Your task to perform on an android device: install app "LiveIn - Share Your Moment" Image 0: 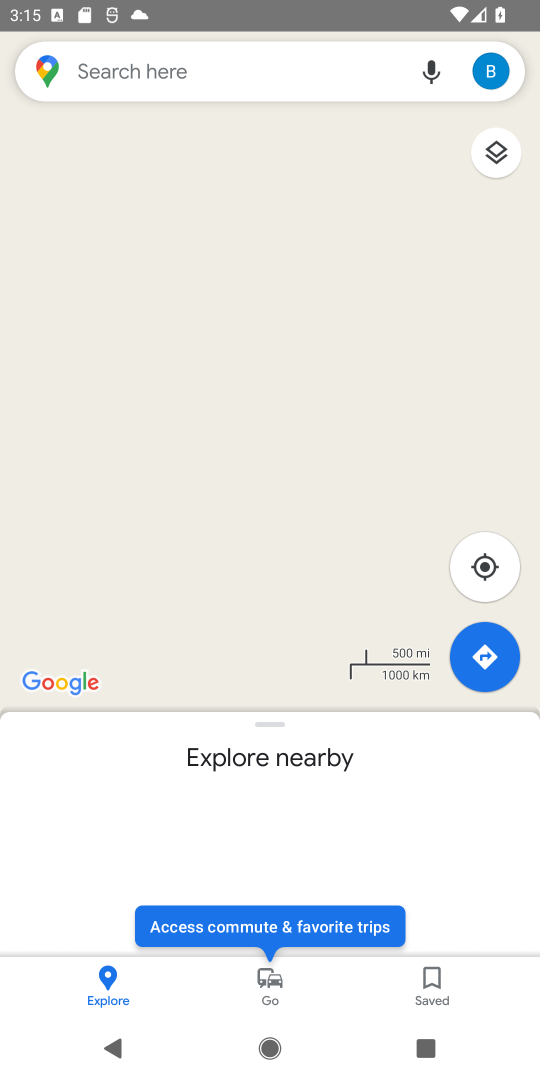
Step 0: press home button
Your task to perform on an android device: install app "LiveIn - Share Your Moment" Image 1: 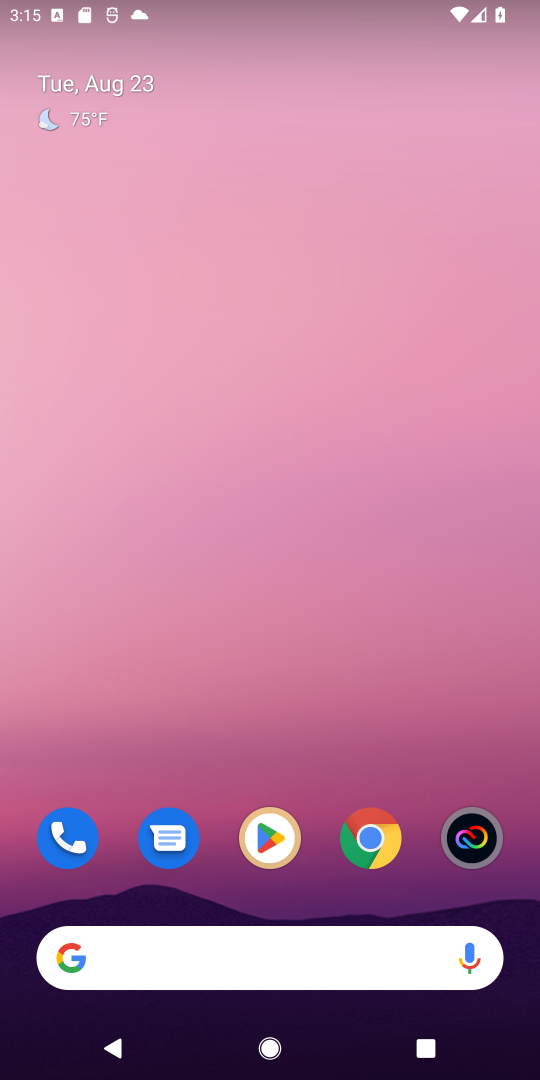
Step 1: click (274, 836)
Your task to perform on an android device: install app "LiveIn - Share Your Moment" Image 2: 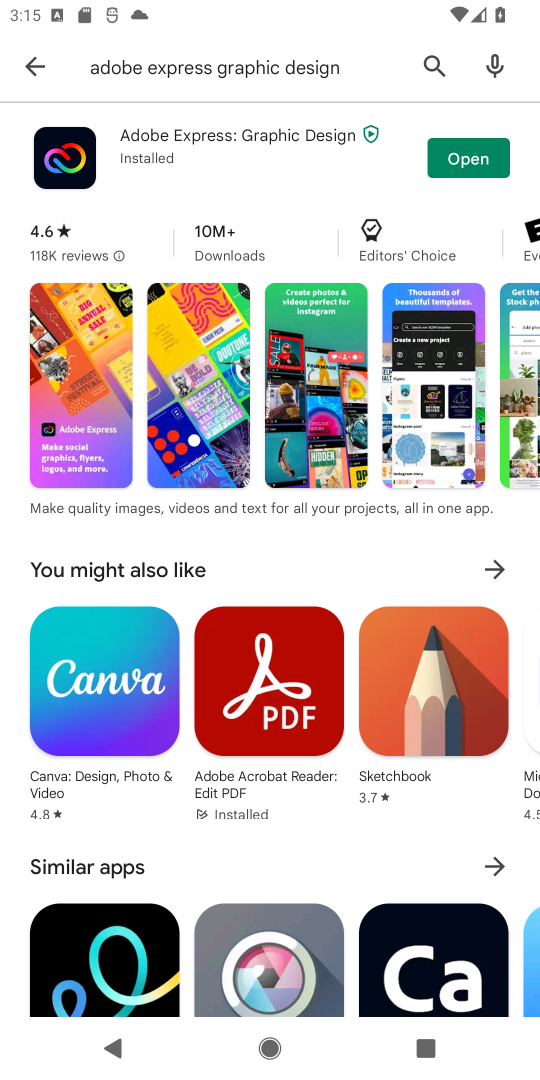
Step 2: click (30, 75)
Your task to perform on an android device: install app "LiveIn - Share Your Moment" Image 3: 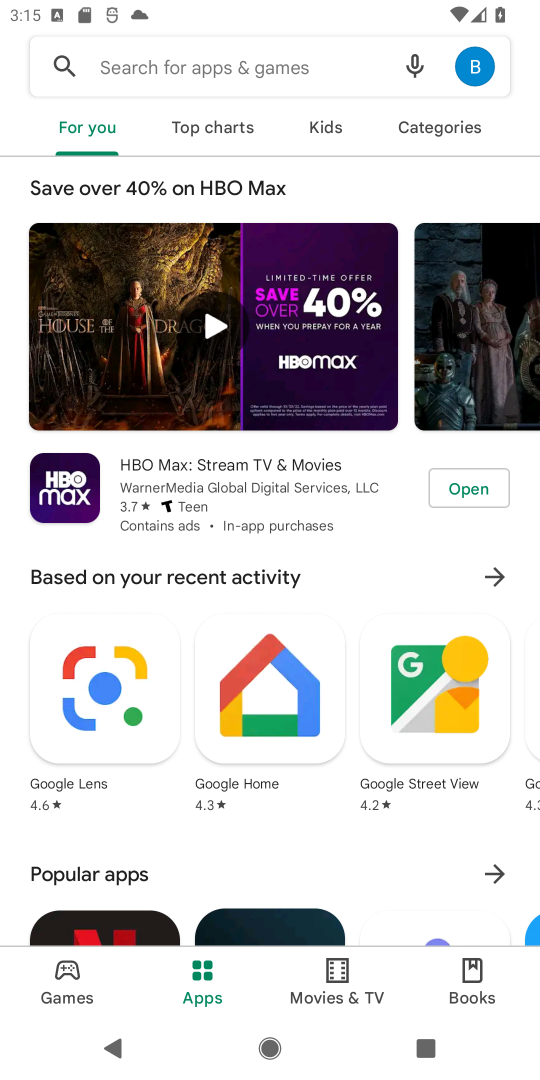
Step 3: click (118, 67)
Your task to perform on an android device: install app "LiveIn - Share Your Moment" Image 4: 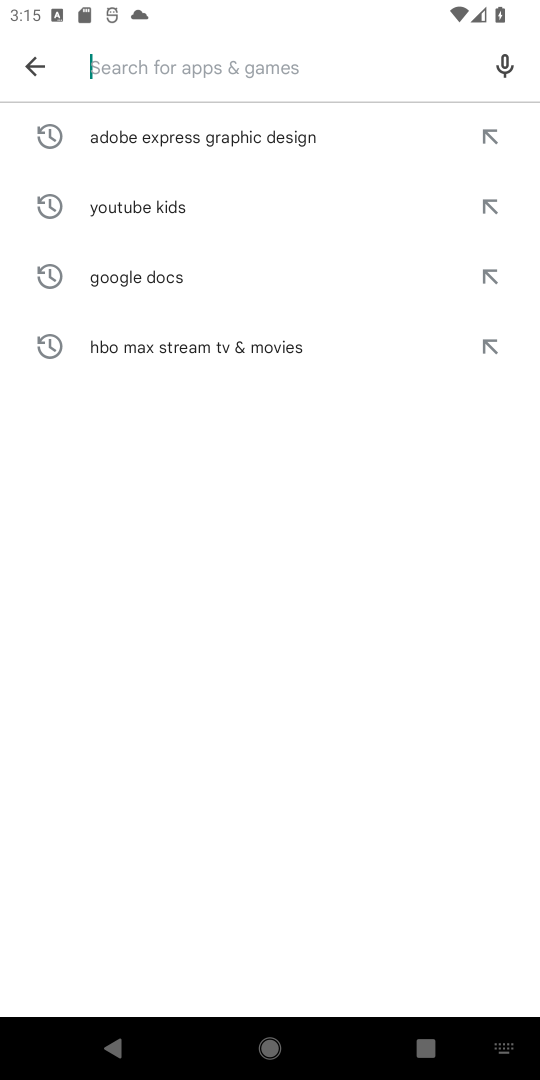
Step 4: type "LiveIn"
Your task to perform on an android device: install app "LiveIn - Share Your Moment" Image 5: 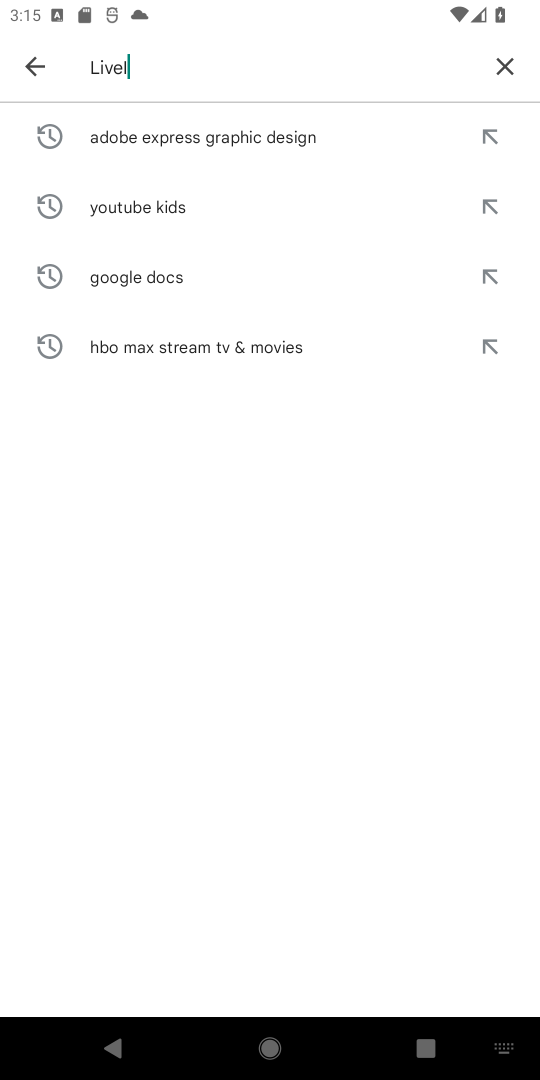
Step 5: type ""
Your task to perform on an android device: install app "LiveIn - Share Your Moment" Image 6: 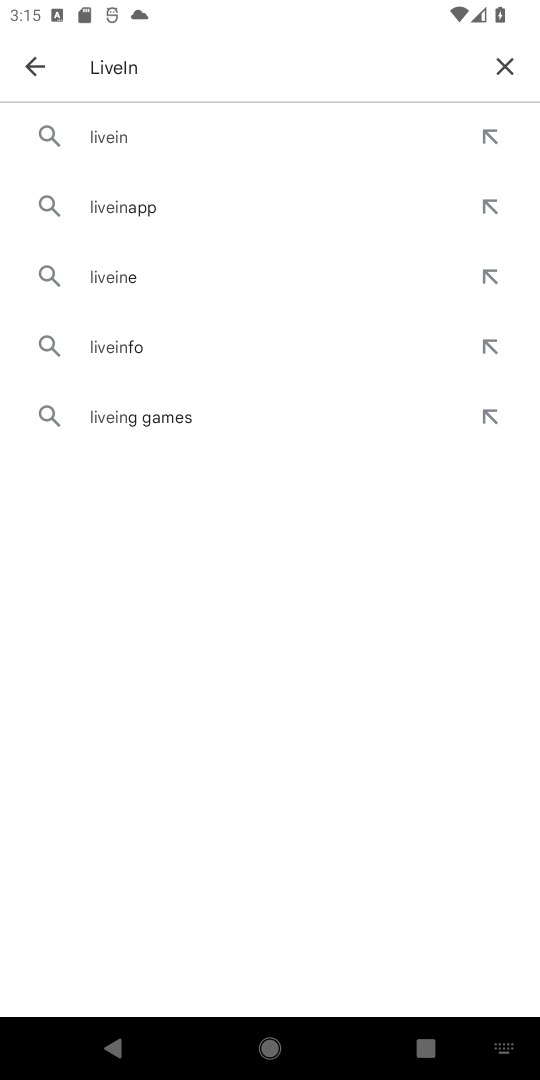
Step 6: click (148, 146)
Your task to perform on an android device: install app "LiveIn - Share Your Moment" Image 7: 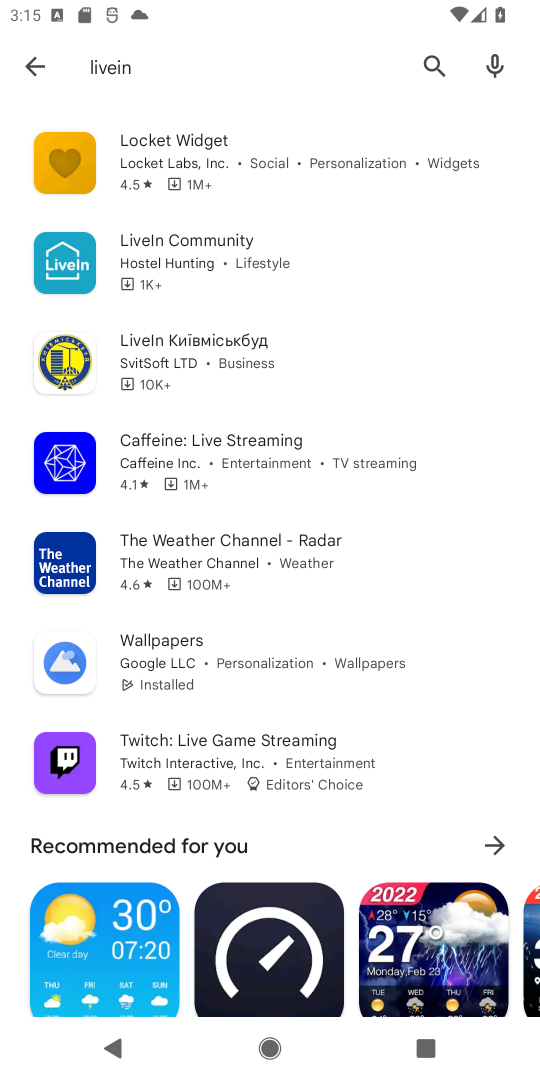
Step 7: task complete